Your task to perform on an android device: toggle sleep mode Image 0: 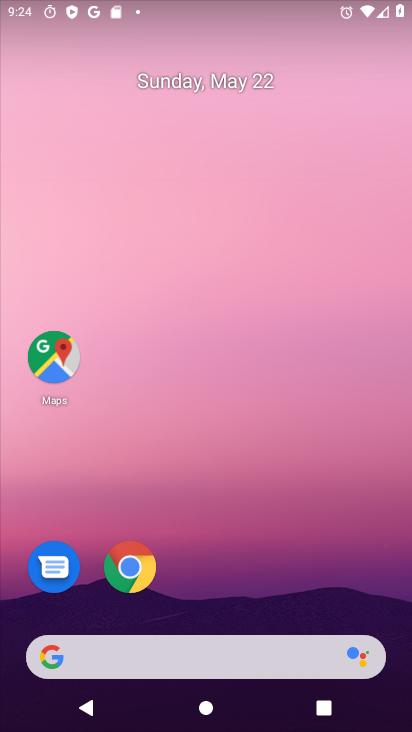
Step 0: drag from (204, 600) to (229, 183)
Your task to perform on an android device: toggle sleep mode Image 1: 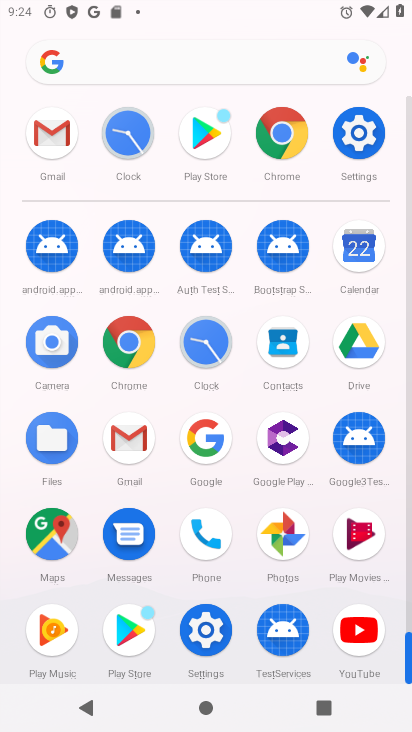
Step 1: click (370, 143)
Your task to perform on an android device: toggle sleep mode Image 2: 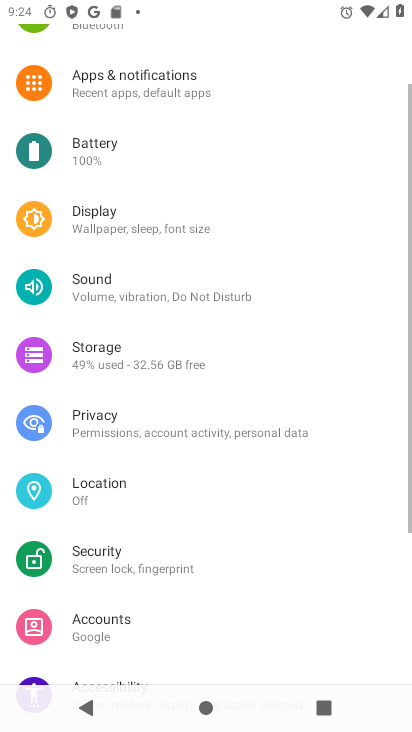
Step 2: drag from (207, 121) to (189, 601)
Your task to perform on an android device: toggle sleep mode Image 3: 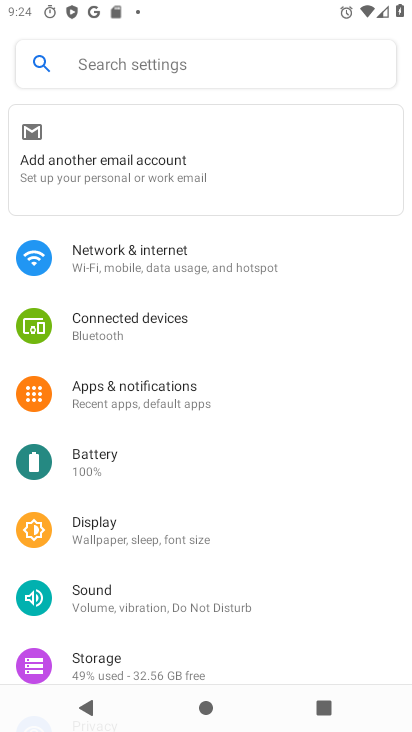
Step 3: click (202, 62)
Your task to perform on an android device: toggle sleep mode Image 4: 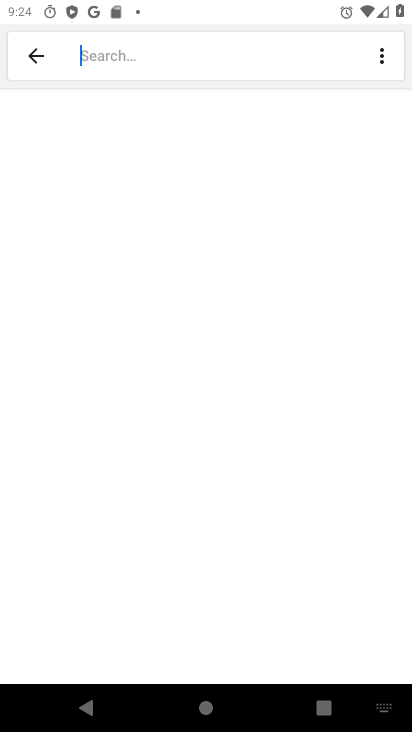
Step 4: type "sleep mode"
Your task to perform on an android device: toggle sleep mode Image 5: 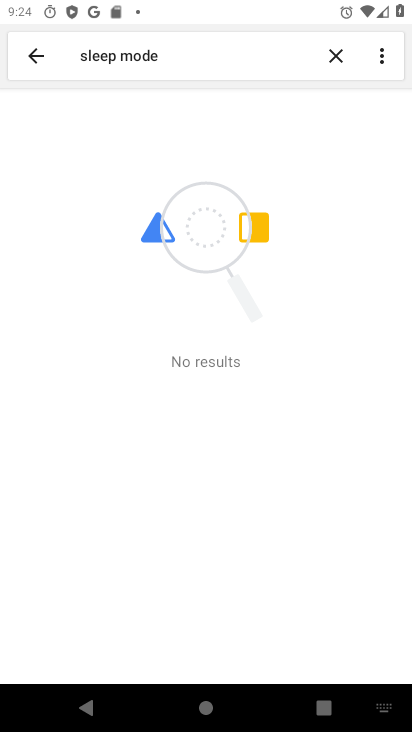
Step 5: task complete